Your task to perform on an android device: change the clock display to digital Image 0: 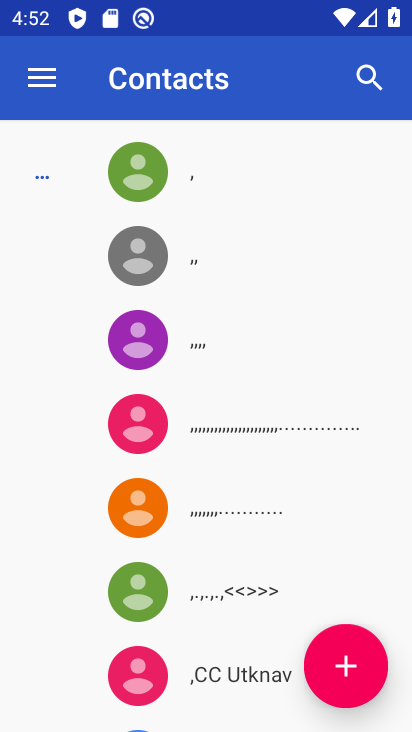
Step 0: press back button
Your task to perform on an android device: change the clock display to digital Image 1: 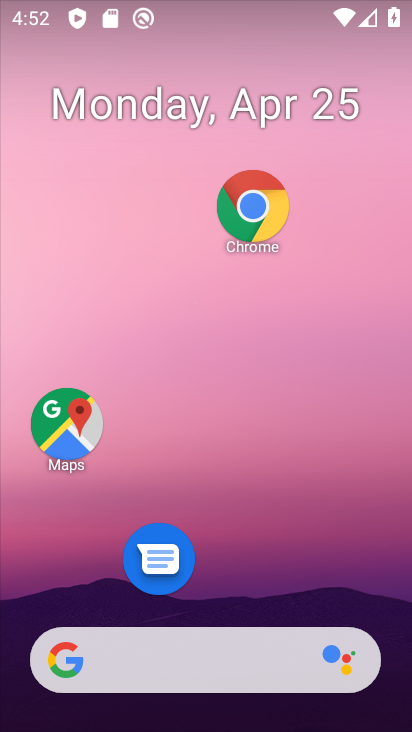
Step 1: drag from (244, 485) to (231, 67)
Your task to perform on an android device: change the clock display to digital Image 2: 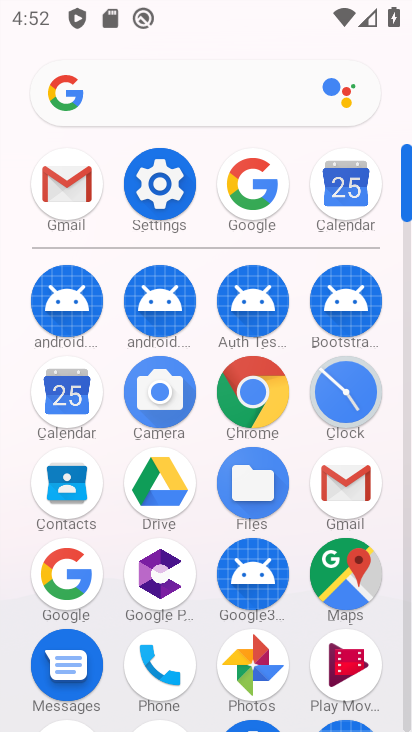
Step 2: click (346, 393)
Your task to perform on an android device: change the clock display to digital Image 3: 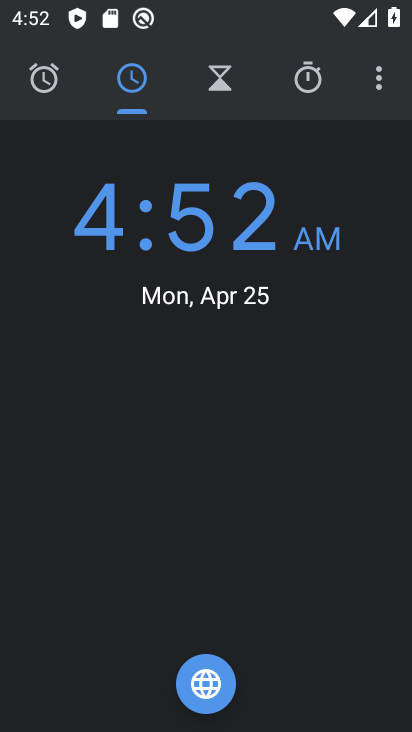
Step 3: click (378, 72)
Your task to perform on an android device: change the clock display to digital Image 4: 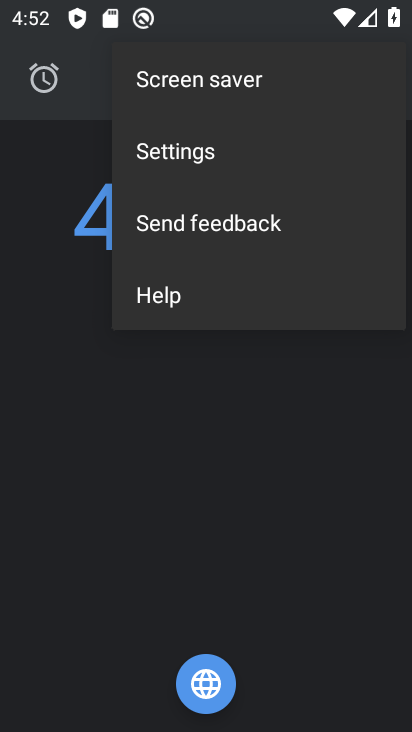
Step 4: click (185, 156)
Your task to perform on an android device: change the clock display to digital Image 5: 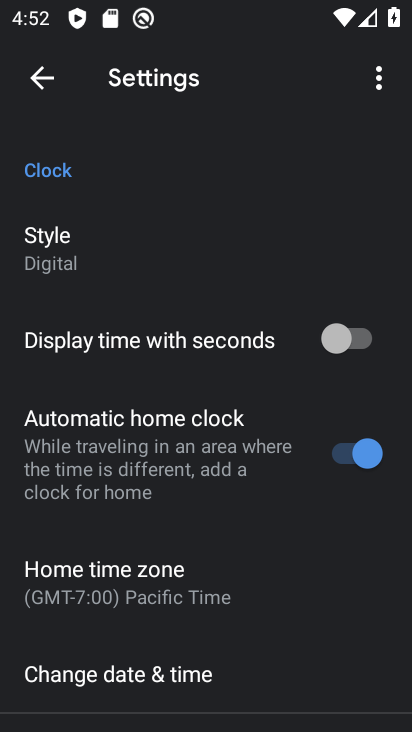
Step 5: click (143, 206)
Your task to perform on an android device: change the clock display to digital Image 6: 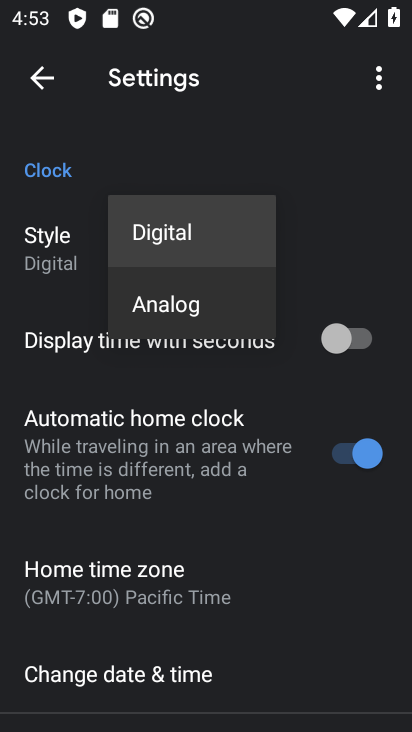
Step 6: click (143, 206)
Your task to perform on an android device: change the clock display to digital Image 7: 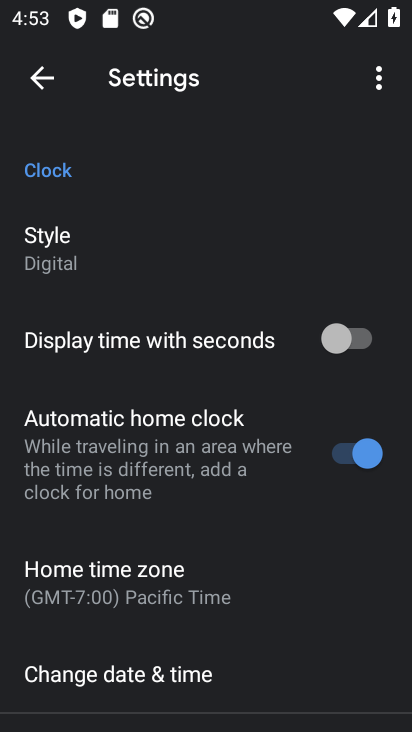
Step 7: task complete